Your task to perform on an android device: What's the weather going to be this weekend? Image 0: 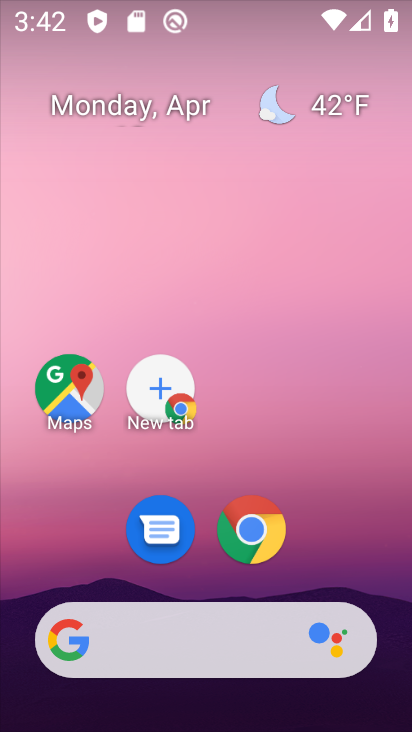
Step 0: drag from (276, 367) to (359, 21)
Your task to perform on an android device: What's the weather going to be this weekend? Image 1: 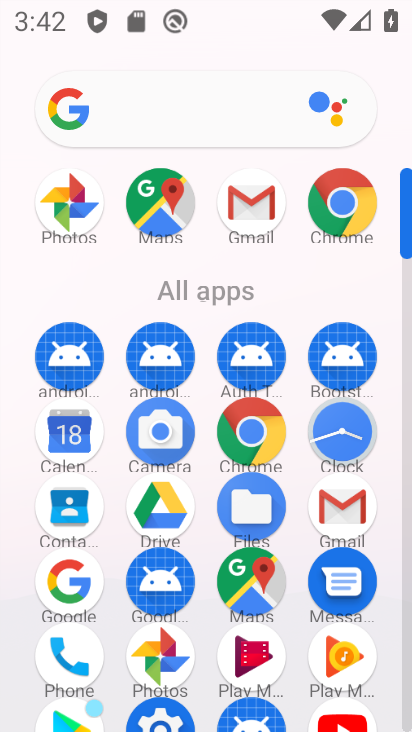
Step 1: click (67, 435)
Your task to perform on an android device: What's the weather going to be this weekend? Image 2: 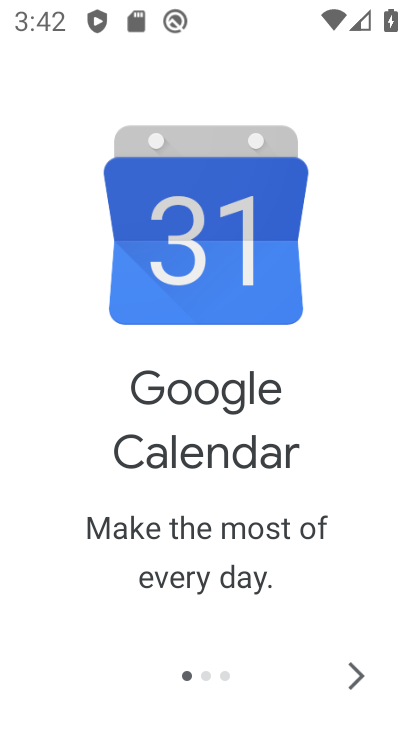
Step 2: click (361, 684)
Your task to perform on an android device: What's the weather going to be this weekend? Image 3: 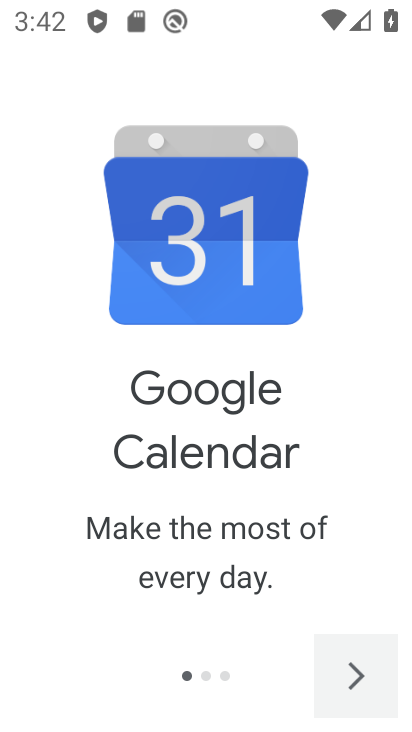
Step 3: click (355, 673)
Your task to perform on an android device: What's the weather going to be this weekend? Image 4: 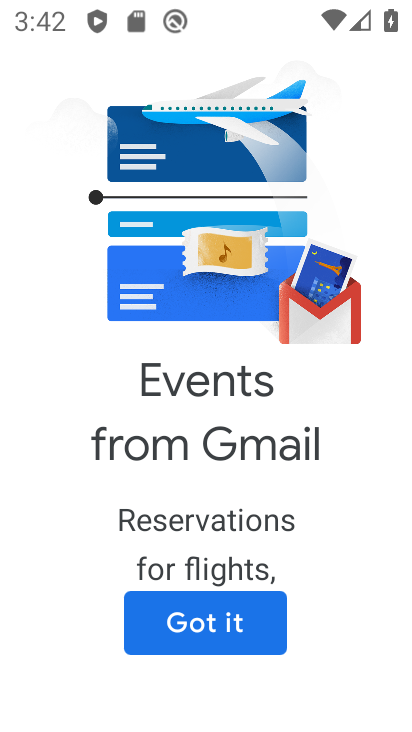
Step 4: click (227, 629)
Your task to perform on an android device: What's the weather going to be this weekend? Image 5: 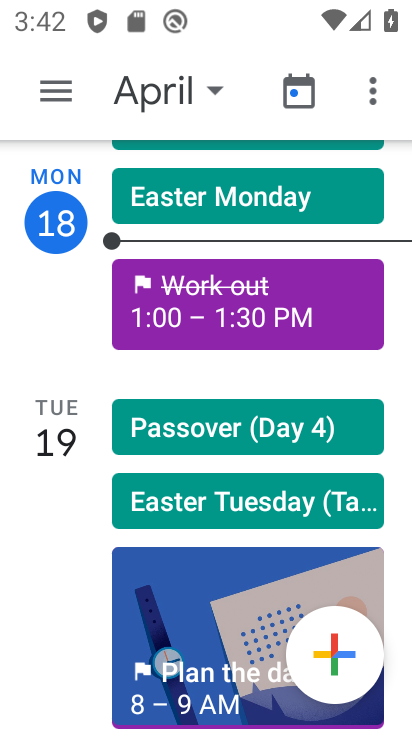
Step 5: press back button
Your task to perform on an android device: What's the weather going to be this weekend? Image 6: 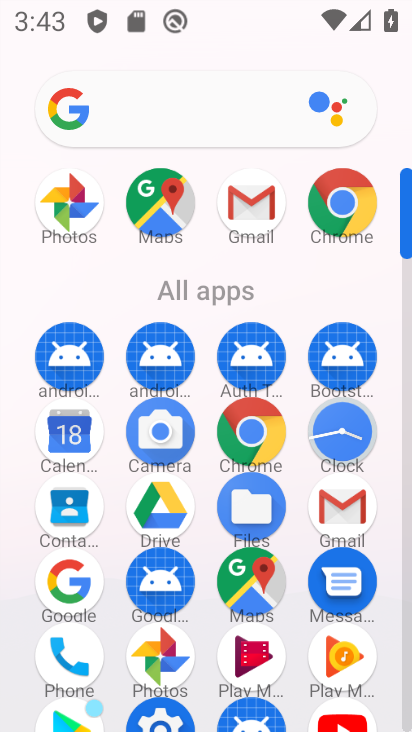
Step 6: press home button
Your task to perform on an android device: What's the weather going to be this weekend? Image 7: 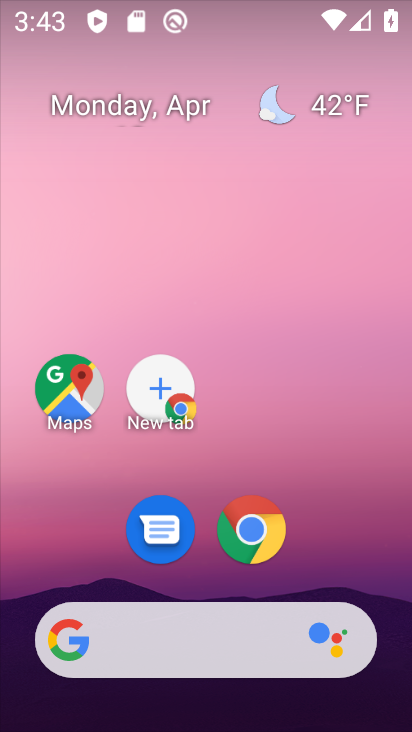
Step 7: drag from (35, 241) to (73, 209)
Your task to perform on an android device: What's the weather going to be this weekend? Image 8: 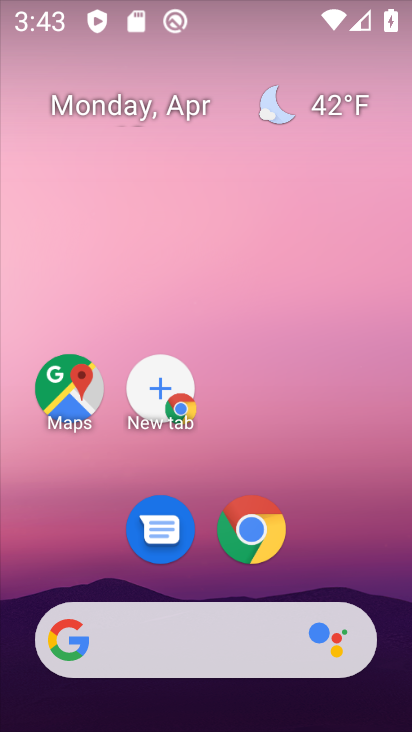
Step 8: click (324, 111)
Your task to perform on an android device: What's the weather going to be this weekend? Image 9: 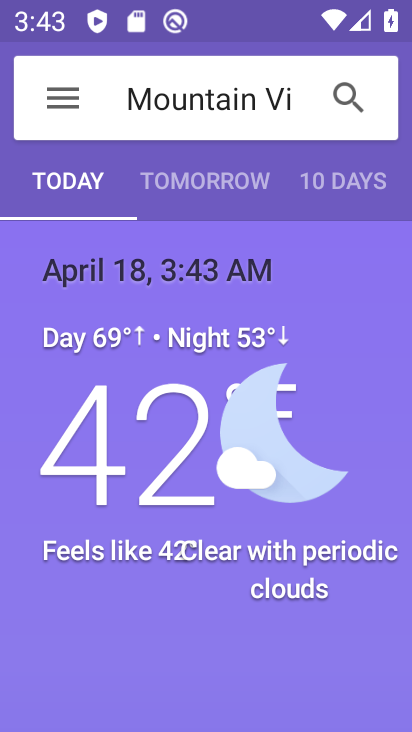
Step 9: click (310, 176)
Your task to perform on an android device: What's the weather going to be this weekend? Image 10: 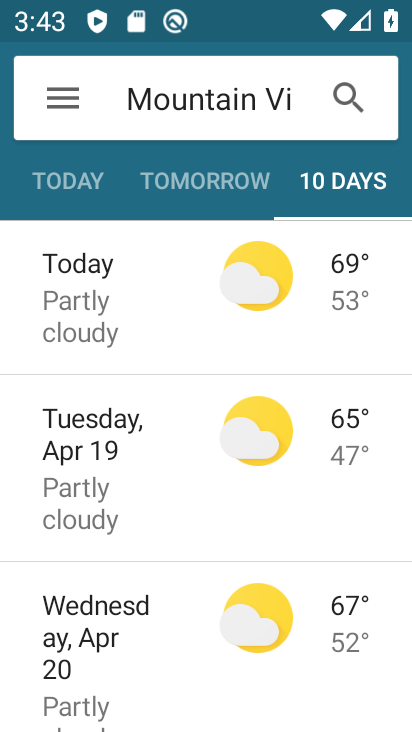
Step 10: task complete